Your task to perform on an android device: Open notification settings Image 0: 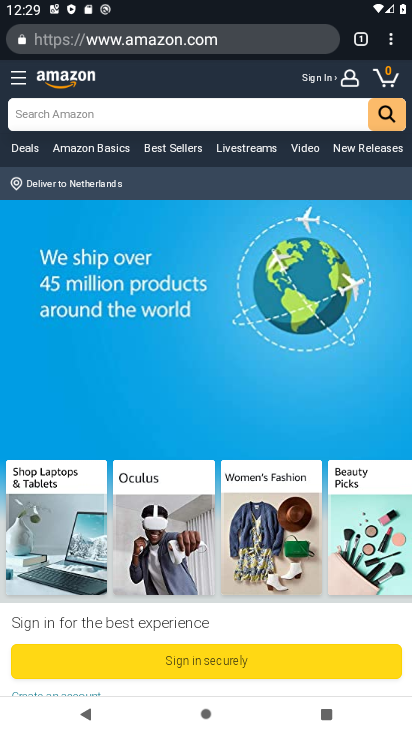
Step 0: press home button
Your task to perform on an android device: Open notification settings Image 1: 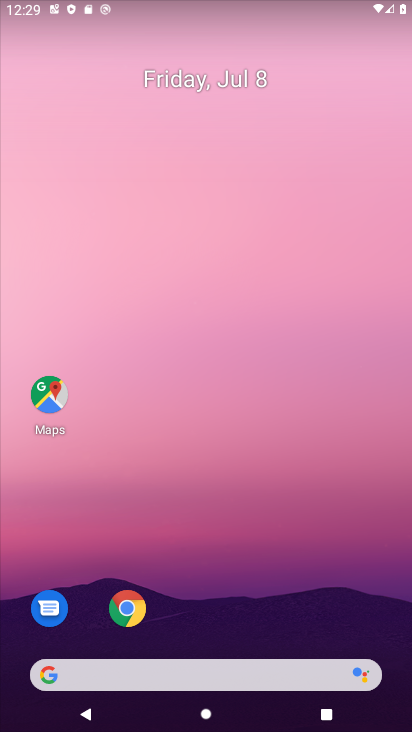
Step 1: drag from (251, 621) to (173, 123)
Your task to perform on an android device: Open notification settings Image 2: 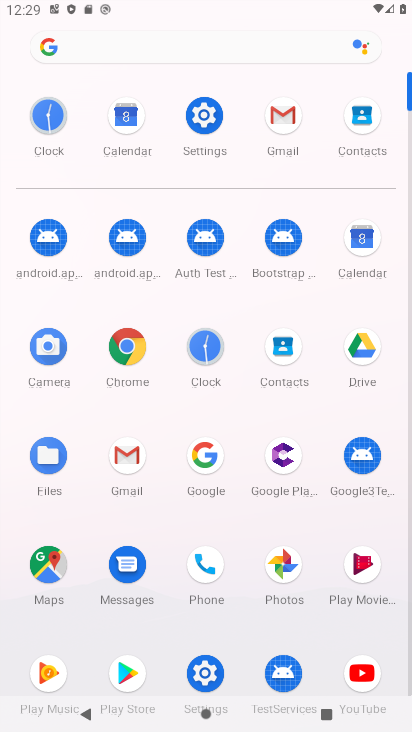
Step 2: click (194, 126)
Your task to perform on an android device: Open notification settings Image 3: 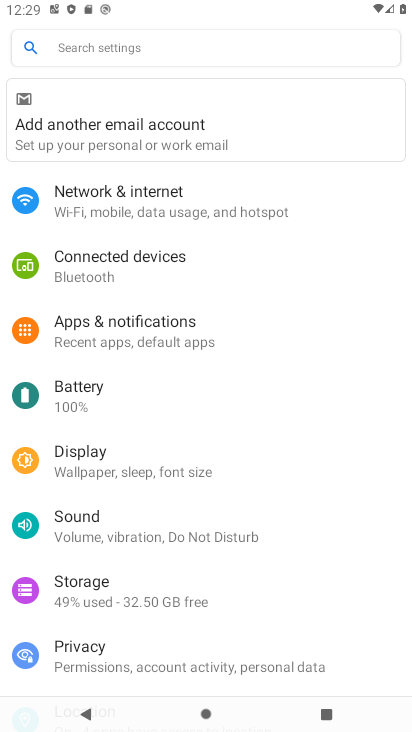
Step 3: click (139, 313)
Your task to perform on an android device: Open notification settings Image 4: 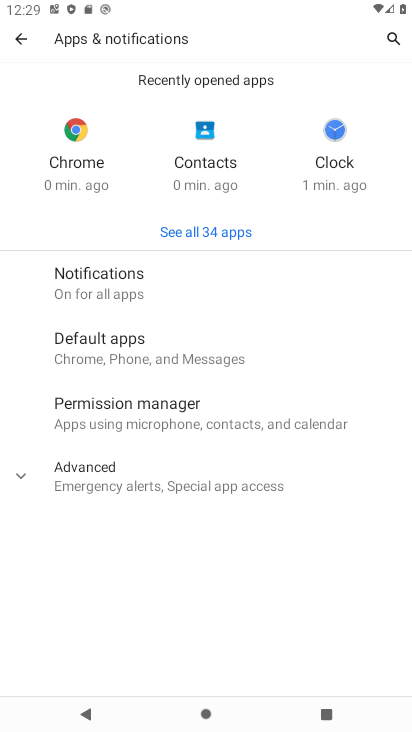
Step 4: task complete